Your task to perform on an android device: Open Amazon Image 0: 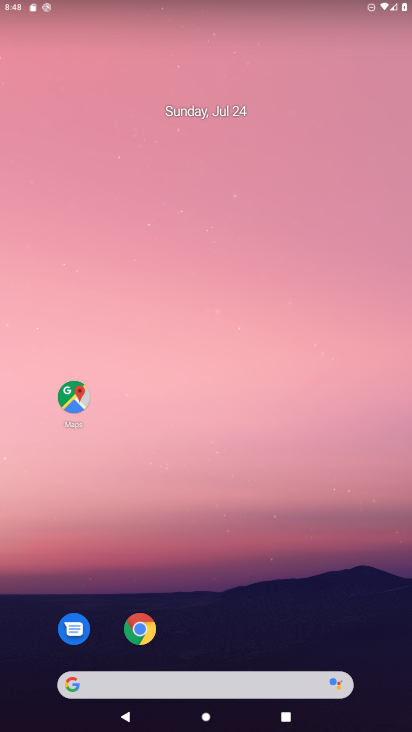
Step 0: drag from (372, 616) to (119, 18)
Your task to perform on an android device: Open Amazon Image 1: 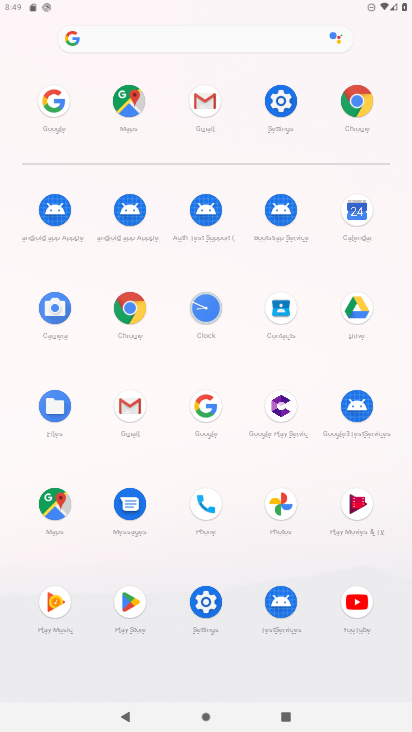
Step 1: click (60, 114)
Your task to perform on an android device: Open Amazon Image 2: 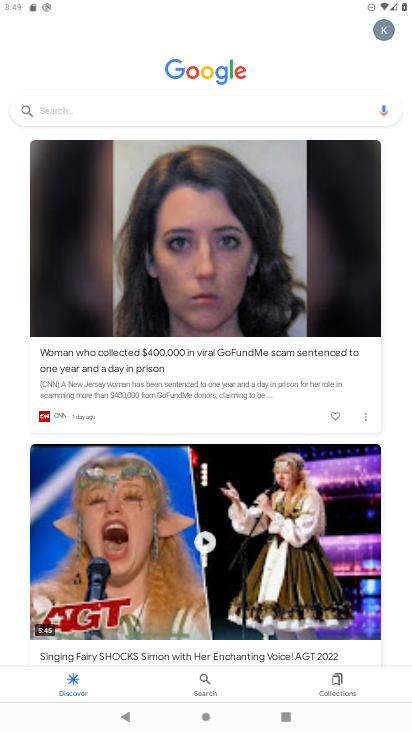
Step 2: click (55, 47)
Your task to perform on an android device: Open Amazon Image 3: 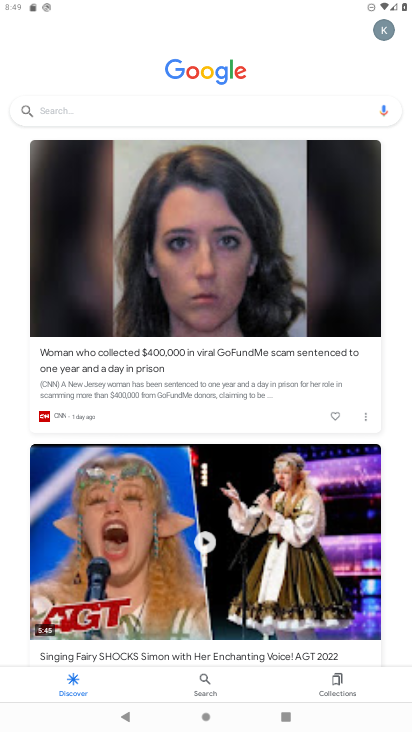
Step 3: click (67, 107)
Your task to perform on an android device: Open Amazon Image 4: 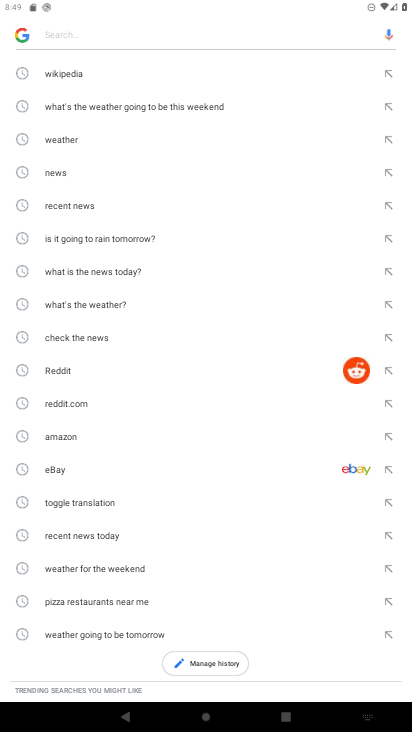
Step 4: type "Amazon"
Your task to perform on an android device: Open Amazon Image 5: 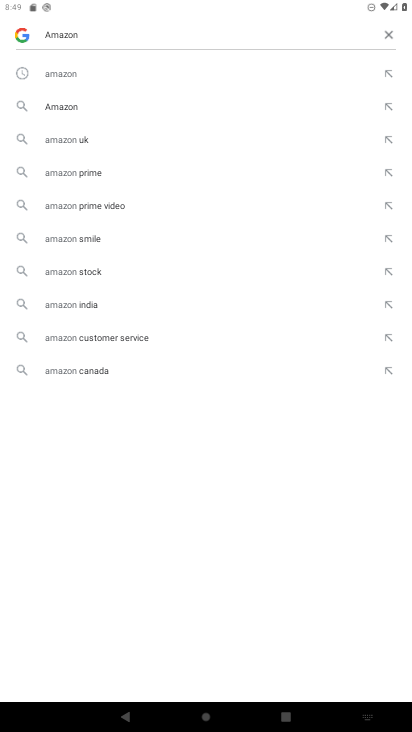
Step 5: click (65, 72)
Your task to perform on an android device: Open Amazon Image 6: 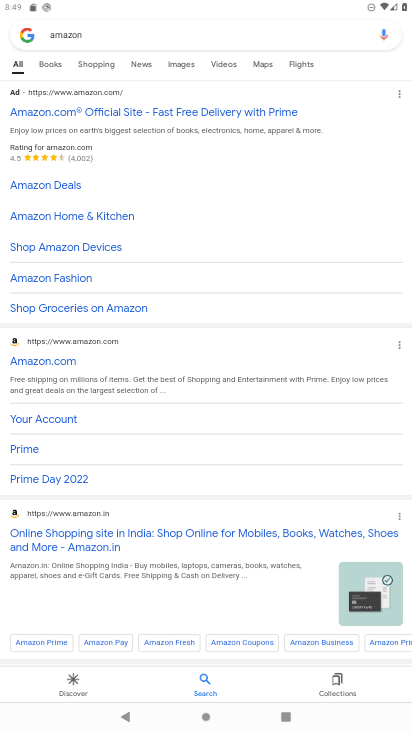
Step 6: task complete